Your task to perform on an android device: check storage Image 0: 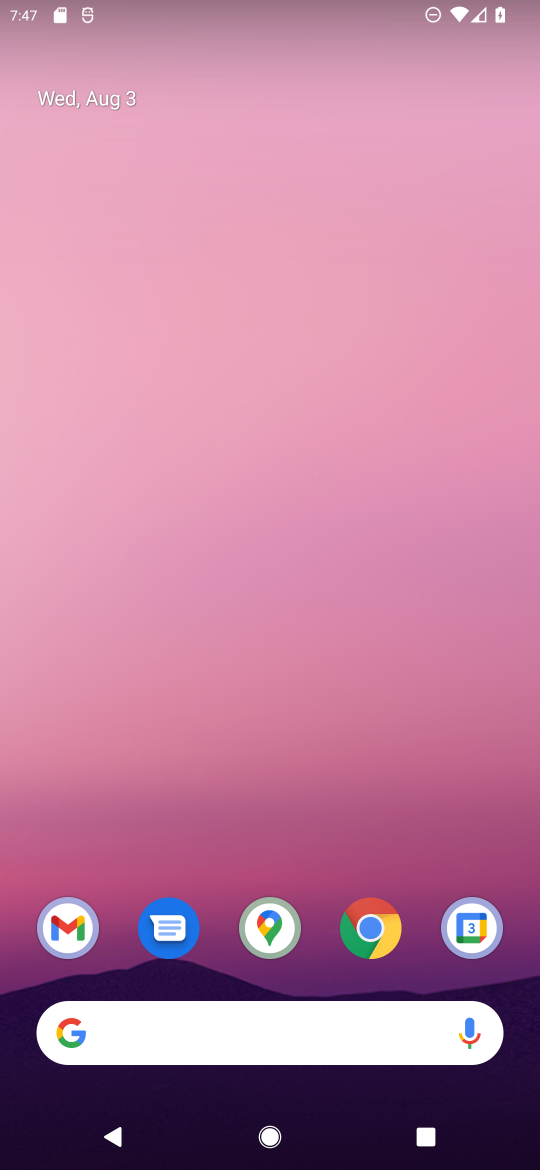
Step 0: drag from (427, 875) to (338, 48)
Your task to perform on an android device: check storage Image 1: 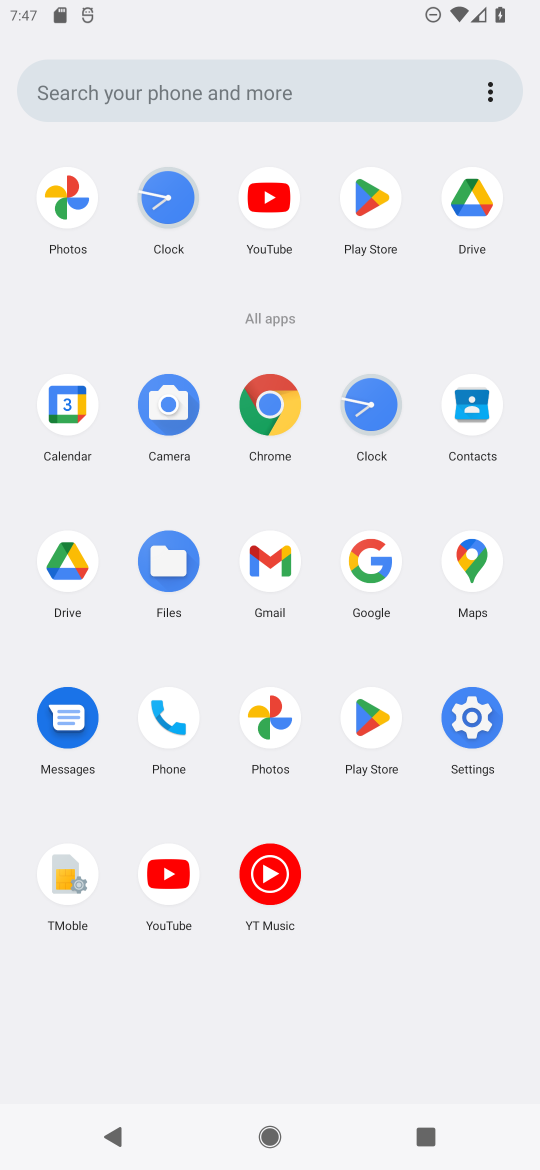
Step 1: click (474, 721)
Your task to perform on an android device: check storage Image 2: 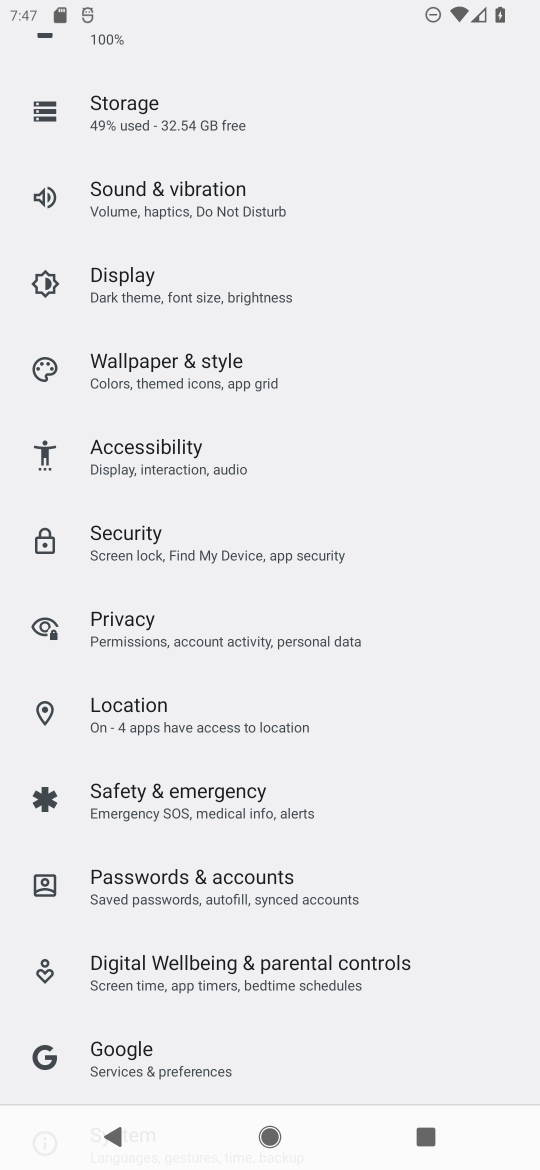
Step 2: click (199, 123)
Your task to perform on an android device: check storage Image 3: 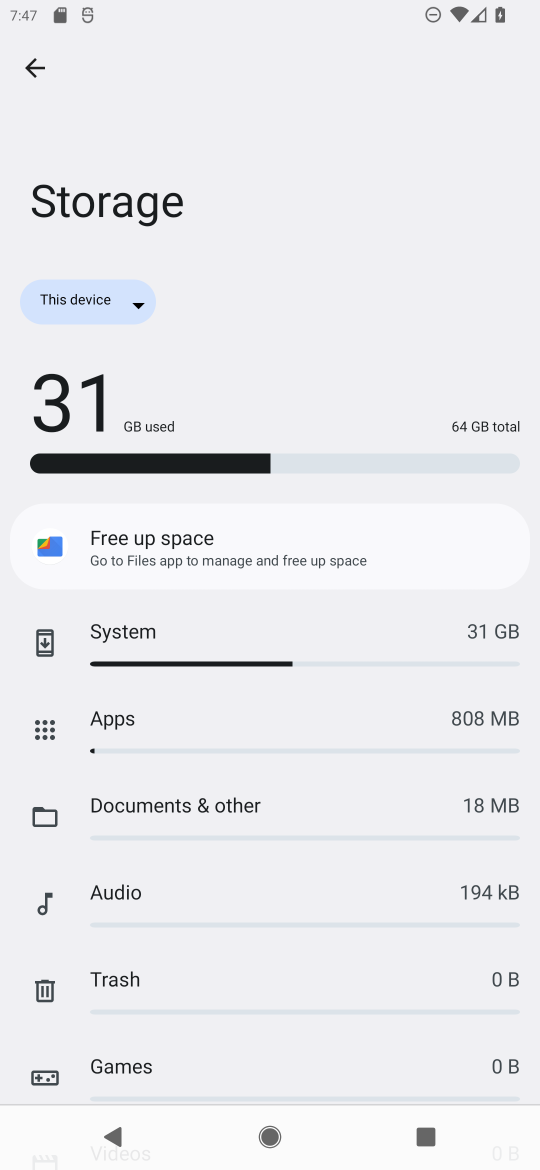
Step 3: task complete